Your task to perform on an android device: Open the calendar app, open the side menu, and click the "Day" option Image 0: 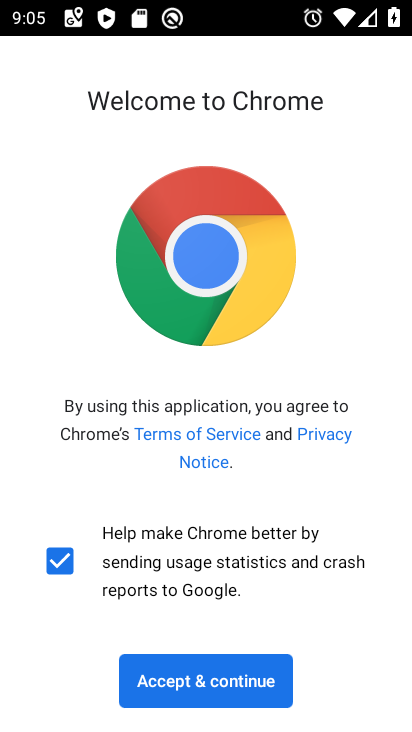
Step 0: press home button
Your task to perform on an android device: Open the calendar app, open the side menu, and click the "Day" option Image 1: 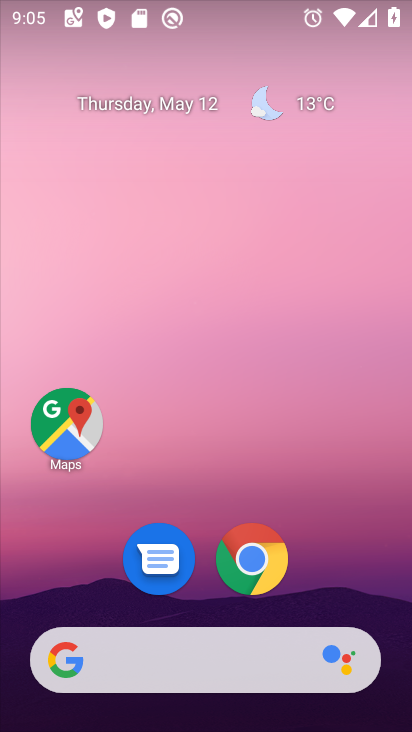
Step 1: drag from (144, 619) to (268, 115)
Your task to perform on an android device: Open the calendar app, open the side menu, and click the "Day" option Image 2: 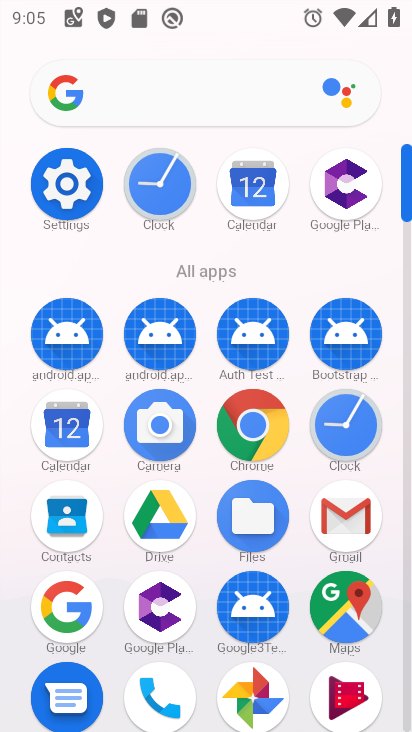
Step 2: click (67, 437)
Your task to perform on an android device: Open the calendar app, open the side menu, and click the "Day" option Image 3: 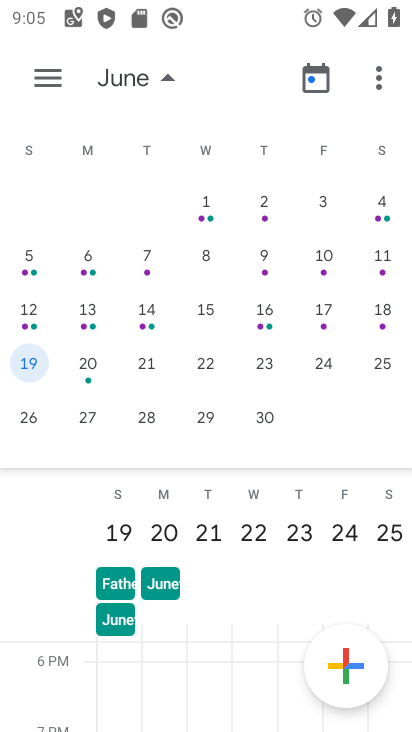
Step 3: click (64, 73)
Your task to perform on an android device: Open the calendar app, open the side menu, and click the "Day" option Image 4: 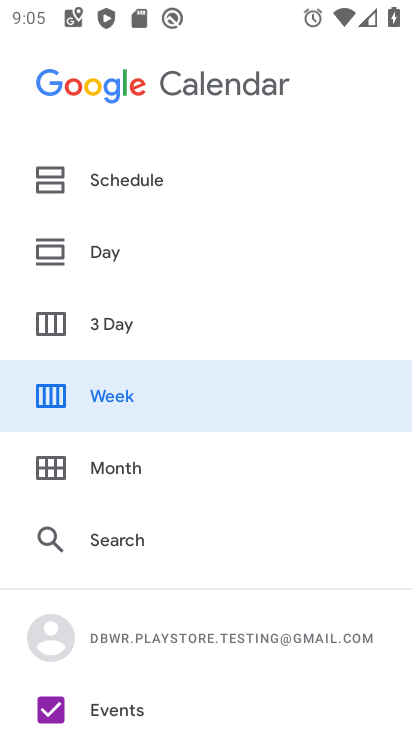
Step 4: click (182, 254)
Your task to perform on an android device: Open the calendar app, open the side menu, and click the "Day" option Image 5: 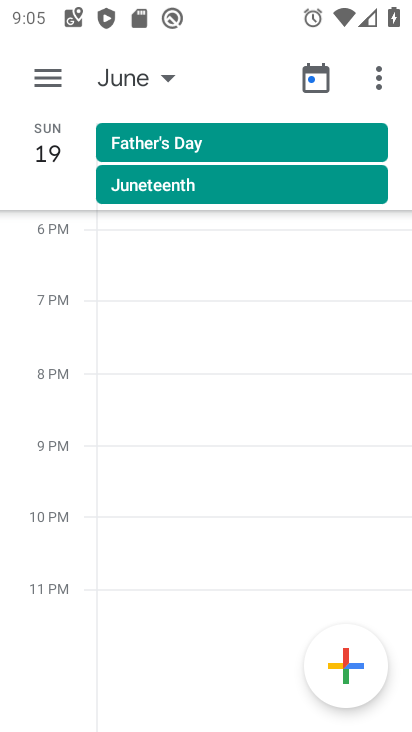
Step 5: task complete